Your task to perform on an android device: Open network settings Image 0: 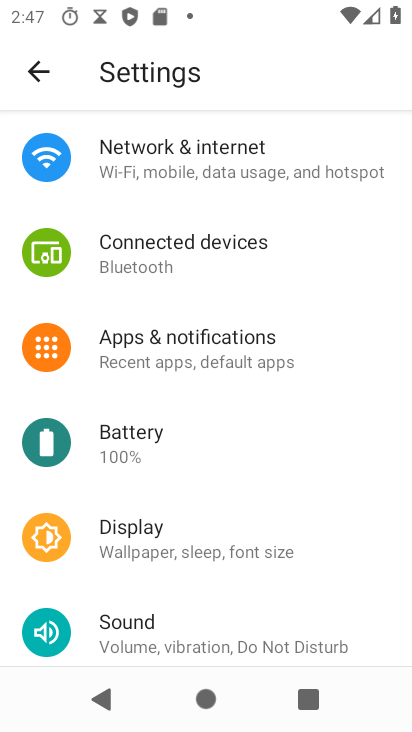
Step 0: press home button
Your task to perform on an android device: Open network settings Image 1: 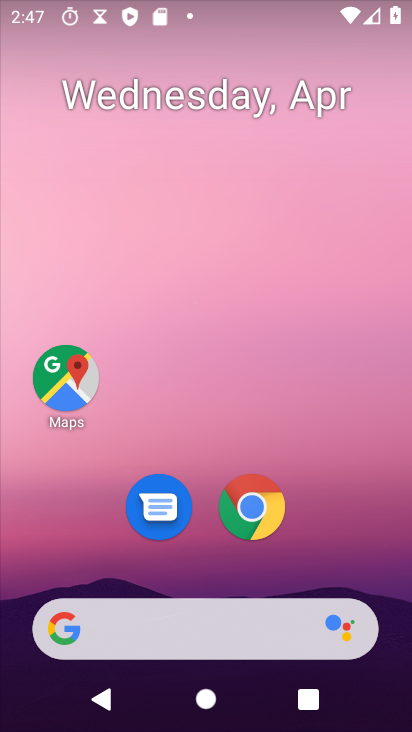
Step 1: drag from (323, 561) to (39, 62)
Your task to perform on an android device: Open network settings Image 2: 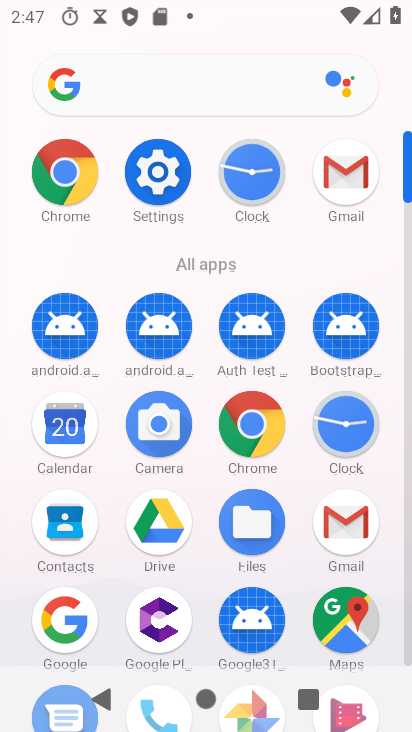
Step 2: click (156, 189)
Your task to perform on an android device: Open network settings Image 3: 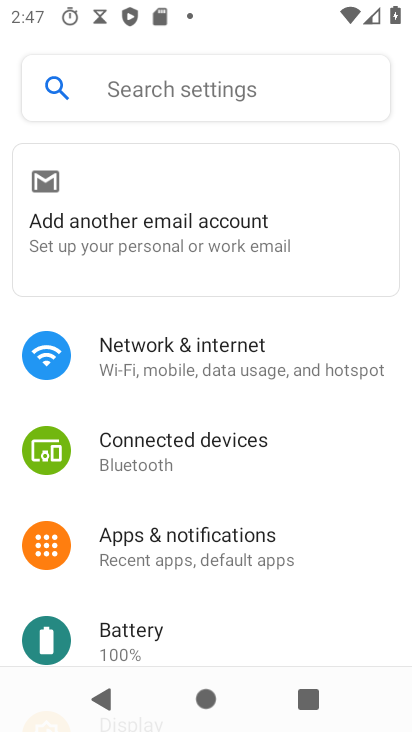
Step 3: click (219, 371)
Your task to perform on an android device: Open network settings Image 4: 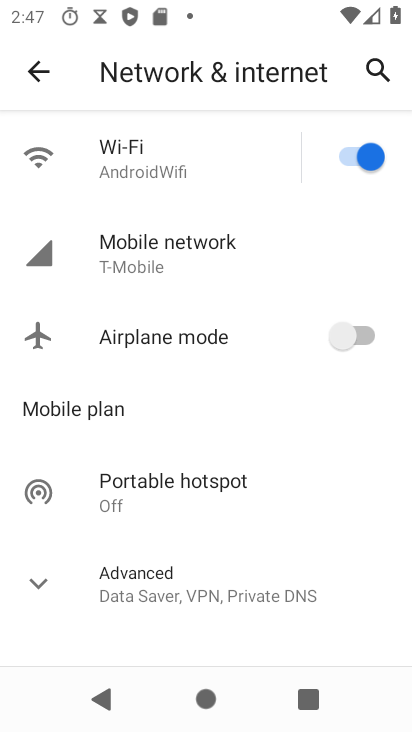
Step 4: task complete